Your task to perform on an android device: toggle improve location accuracy Image 0: 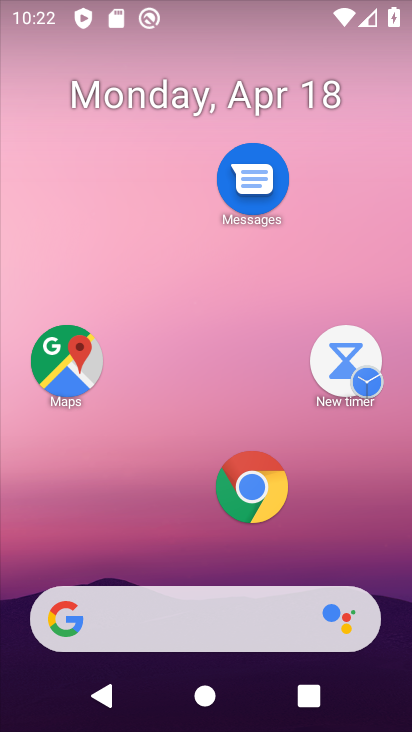
Step 0: drag from (126, 514) to (259, 43)
Your task to perform on an android device: toggle improve location accuracy Image 1: 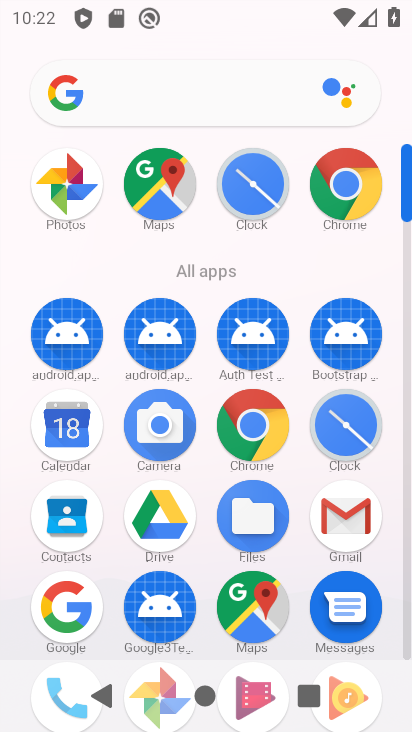
Step 1: drag from (197, 598) to (363, 154)
Your task to perform on an android device: toggle improve location accuracy Image 2: 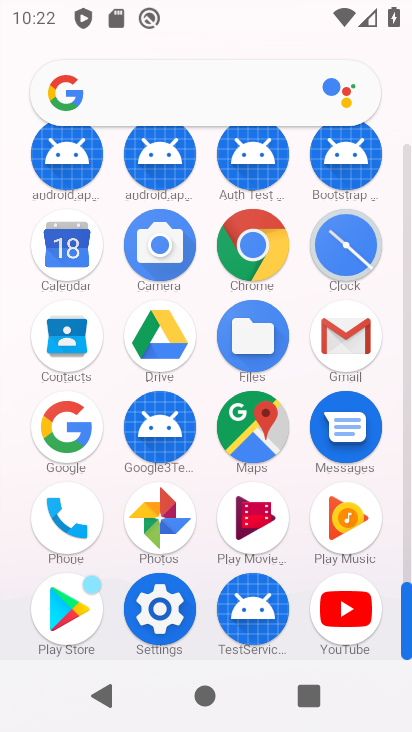
Step 2: click (149, 615)
Your task to perform on an android device: toggle improve location accuracy Image 3: 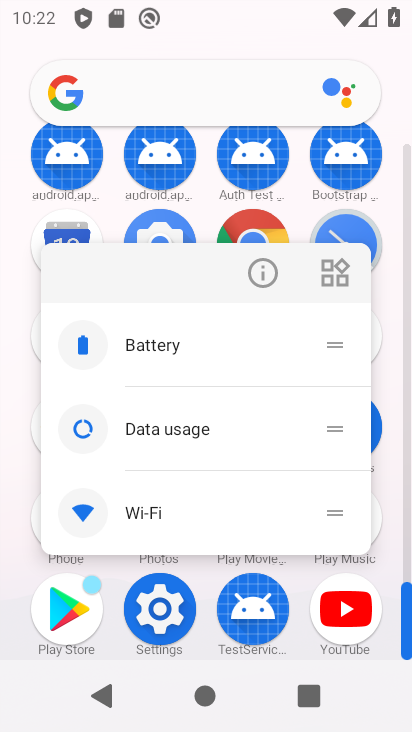
Step 3: click (148, 599)
Your task to perform on an android device: toggle improve location accuracy Image 4: 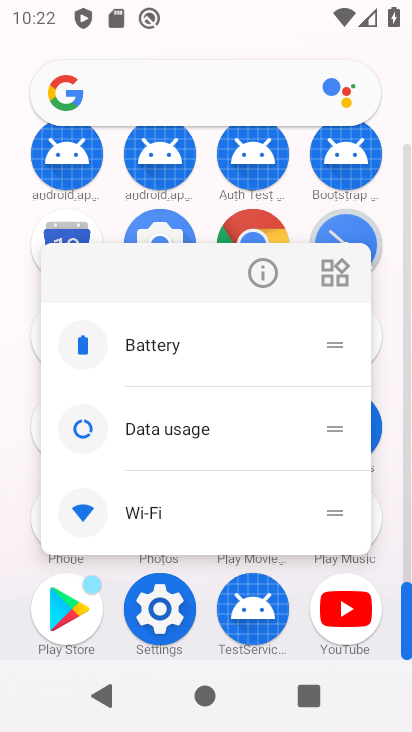
Step 4: click (140, 620)
Your task to perform on an android device: toggle improve location accuracy Image 5: 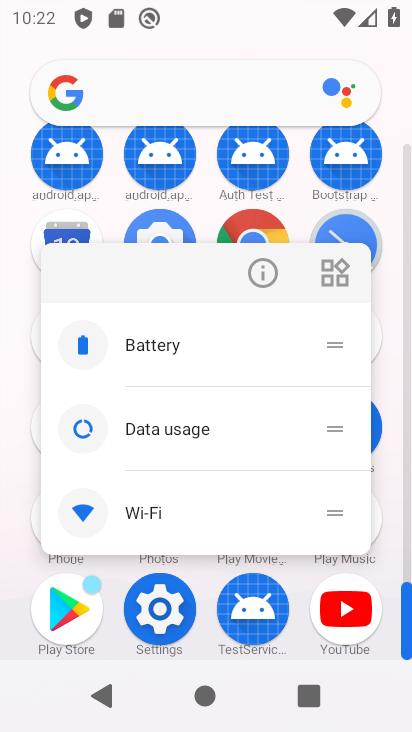
Step 5: click (162, 618)
Your task to perform on an android device: toggle improve location accuracy Image 6: 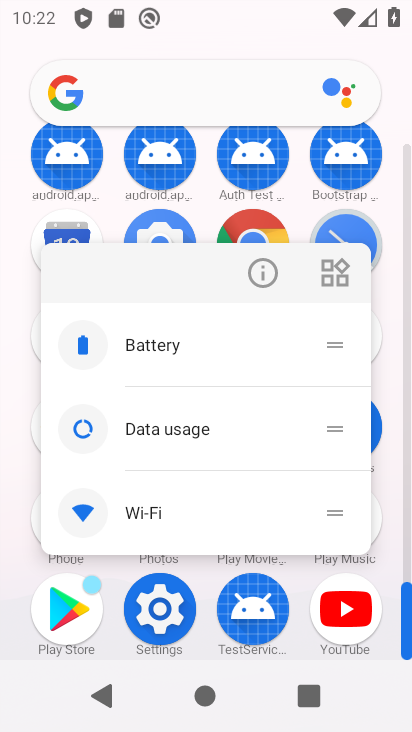
Step 6: click (143, 618)
Your task to perform on an android device: toggle improve location accuracy Image 7: 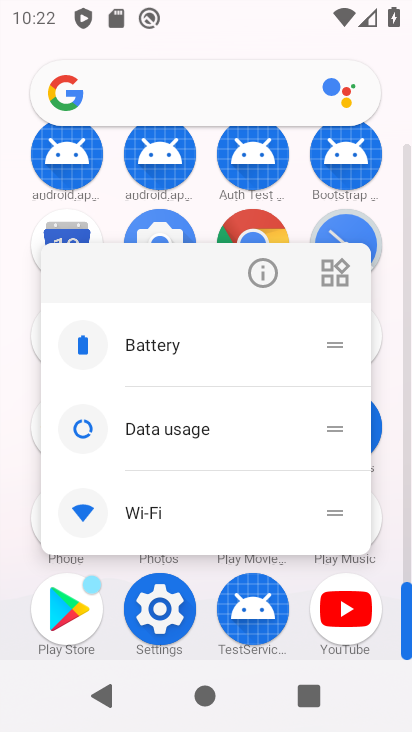
Step 7: click (164, 604)
Your task to perform on an android device: toggle improve location accuracy Image 8: 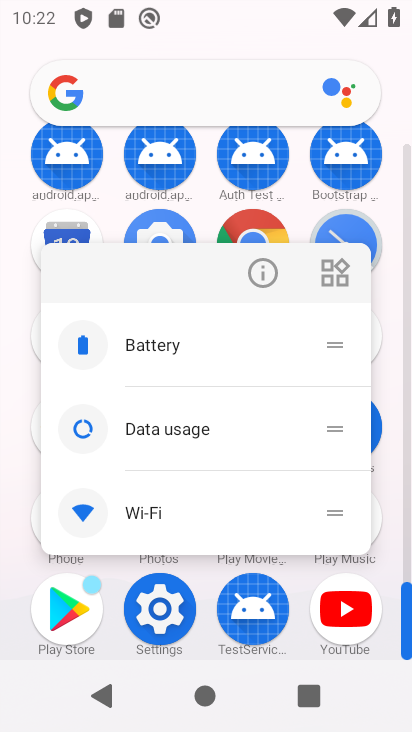
Step 8: click (177, 628)
Your task to perform on an android device: toggle improve location accuracy Image 9: 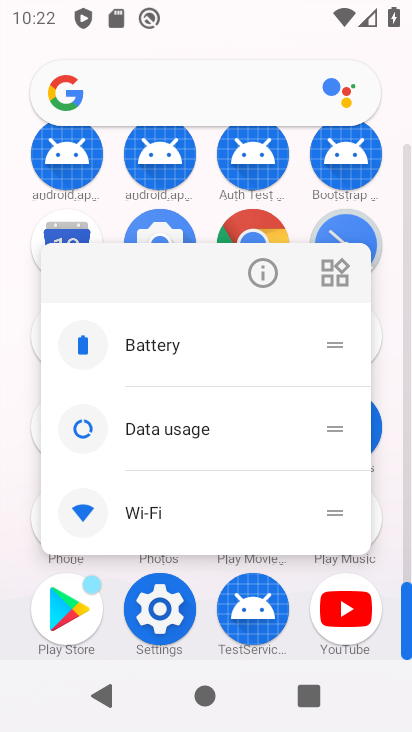
Step 9: click (169, 613)
Your task to perform on an android device: toggle improve location accuracy Image 10: 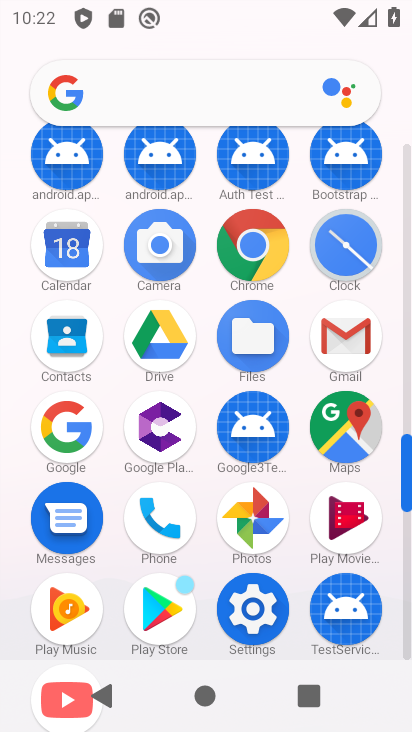
Step 10: click (252, 613)
Your task to perform on an android device: toggle improve location accuracy Image 11: 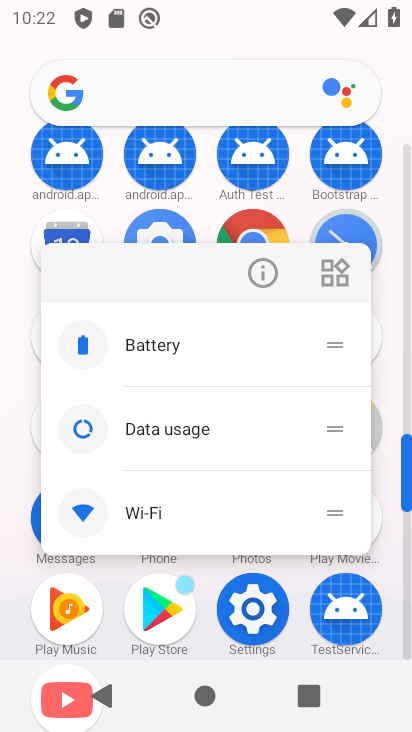
Step 11: click (266, 602)
Your task to perform on an android device: toggle improve location accuracy Image 12: 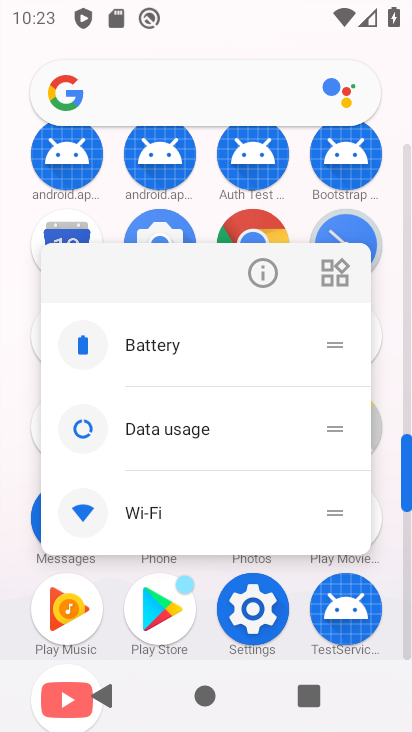
Step 12: click (193, 640)
Your task to perform on an android device: toggle improve location accuracy Image 13: 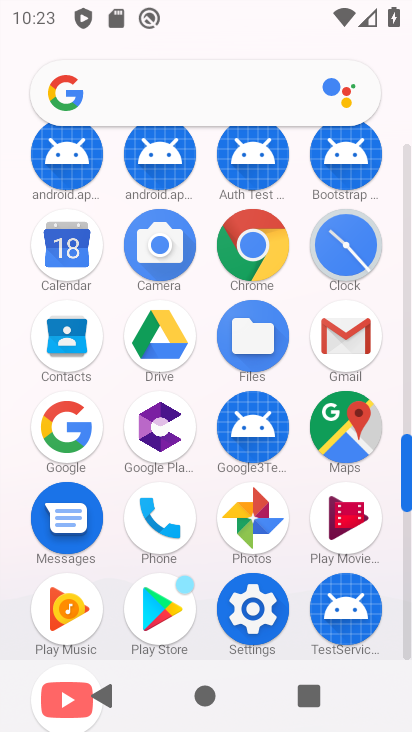
Step 13: click (266, 619)
Your task to perform on an android device: toggle improve location accuracy Image 14: 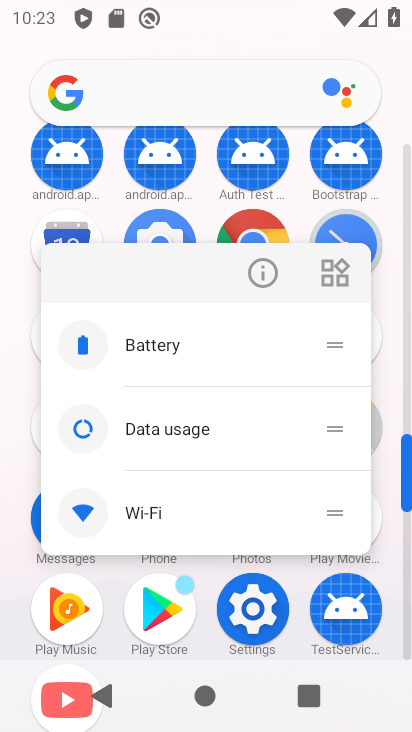
Step 14: click (262, 614)
Your task to perform on an android device: toggle improve location accuracy Image 15: 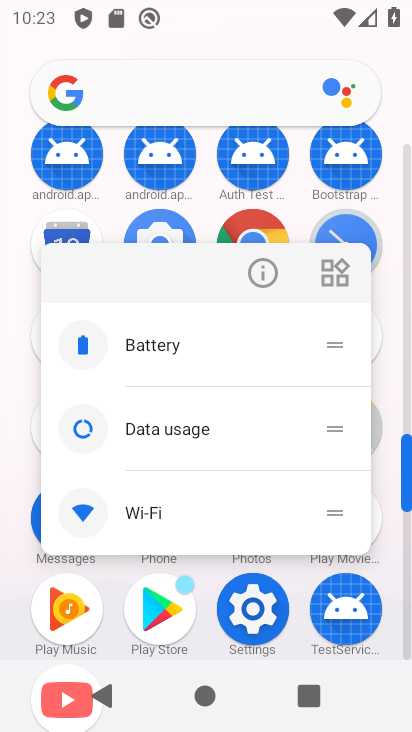
Step 15: click (262, 612)
Your task to perform on an android device: toggle improve location accuracy Image 16: 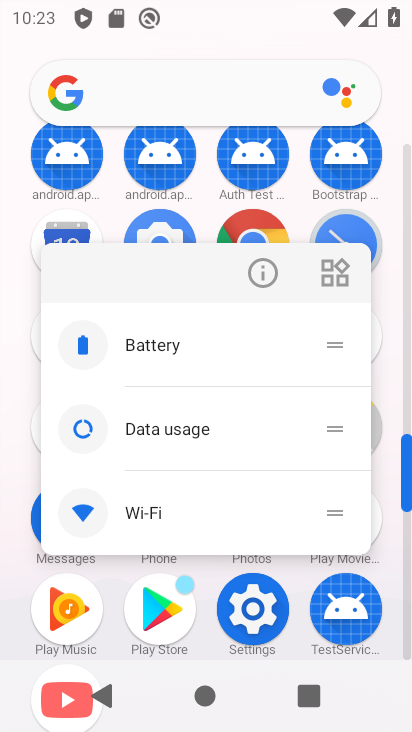
Step 16: click (252, 597)
Your task to perform on an android device: toggle improve location accuracy Image 17: 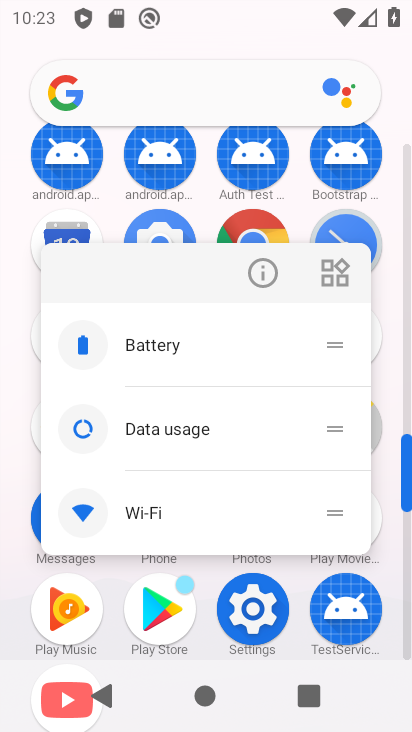
Step 17: click (250, 609)
Your task to perform on an android device: toggle improve location accuracy Image 18: 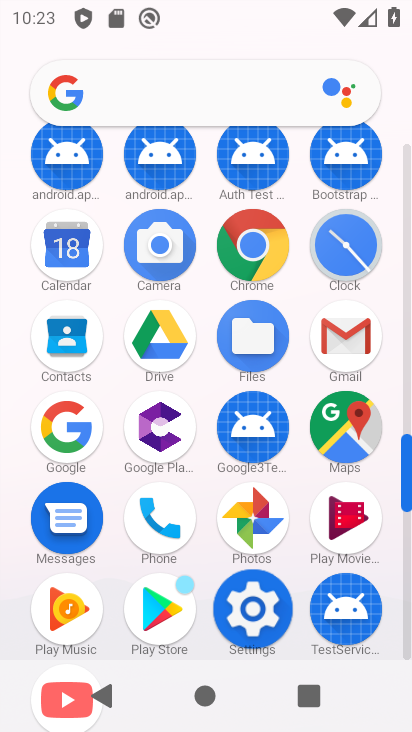
Step 18: click (250, 609)
Your task to perform on an android device: toggle improve location accuracy Image 19: 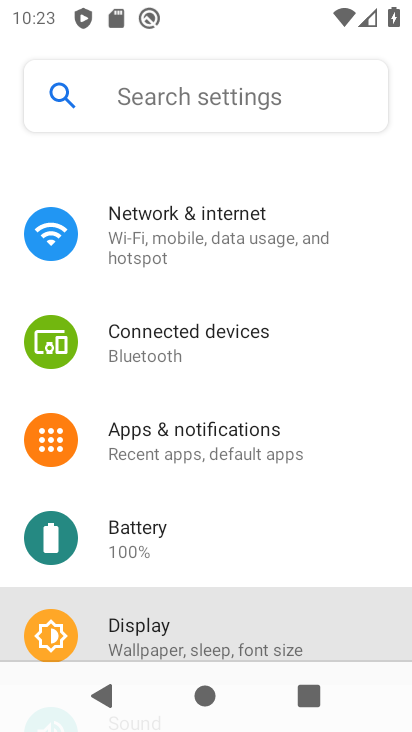
Step 19: click (250, 609)
Your task to perform on an android device: toggle improve location accuracy Image 20: 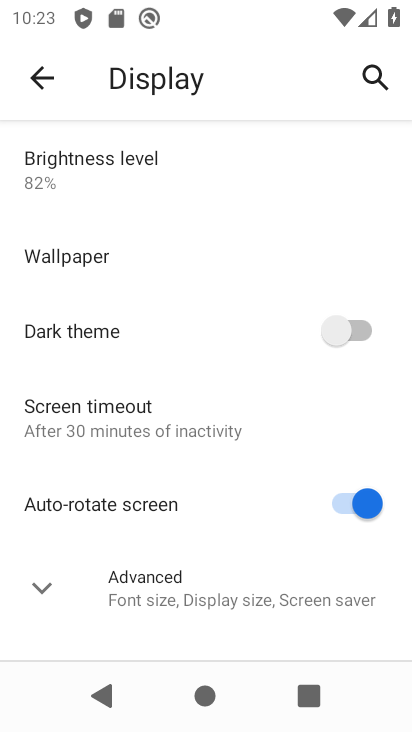
Step 20: press back button
Your task to perform on an android device: toggle improve location accuracy Image 21: 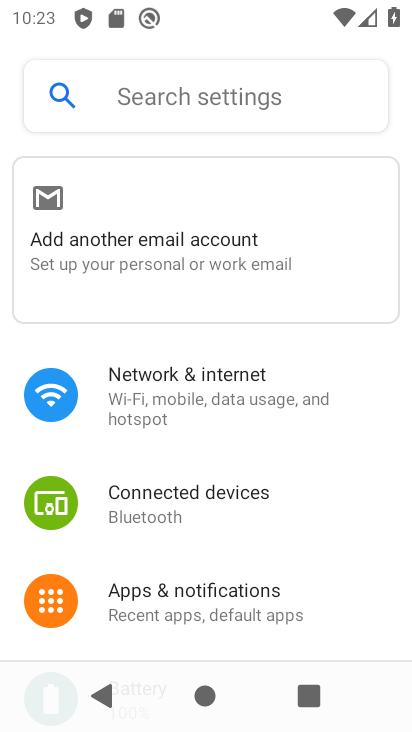
Step 21: drag from (194, 591) to (360, 93)
Your task to perform on an android device: toggle improve location accuracy Image 22: 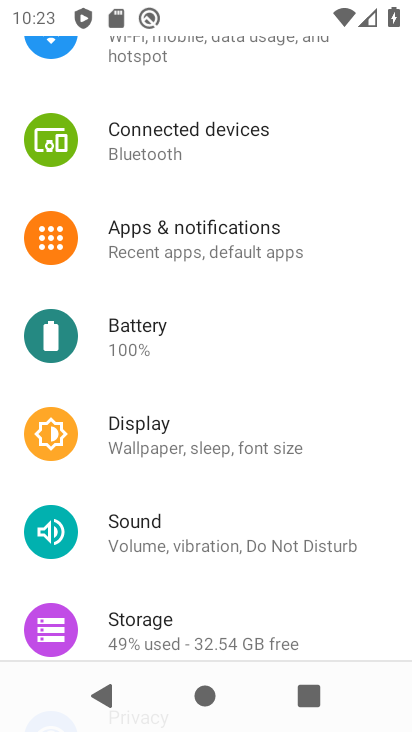
Step 22: drag from (259, 269) to (329, 113)
Your task to perform on an android device: toggle improve location accuracy Image 23: 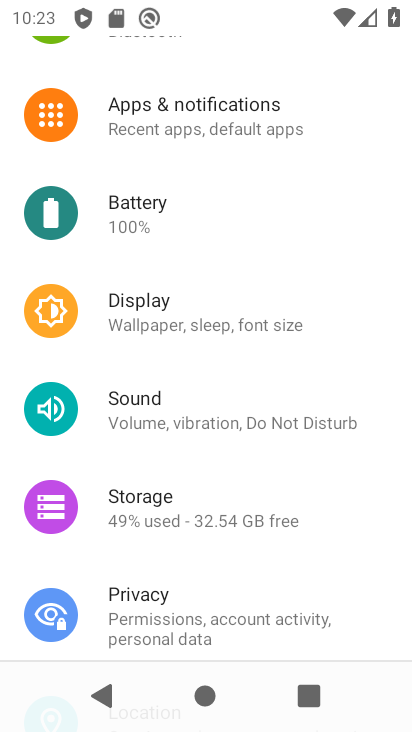
Step 23: drag from (188, 591) to (309, 171)
Your task to perform on an android device: toggle improve location accuracy Image 24: 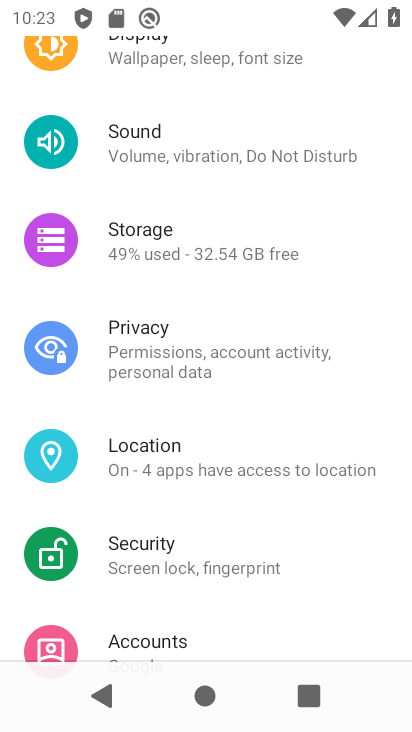
Step 24: click (149, 462)
Your task to perform on an android device: toggle improve location accuracy Image 25: 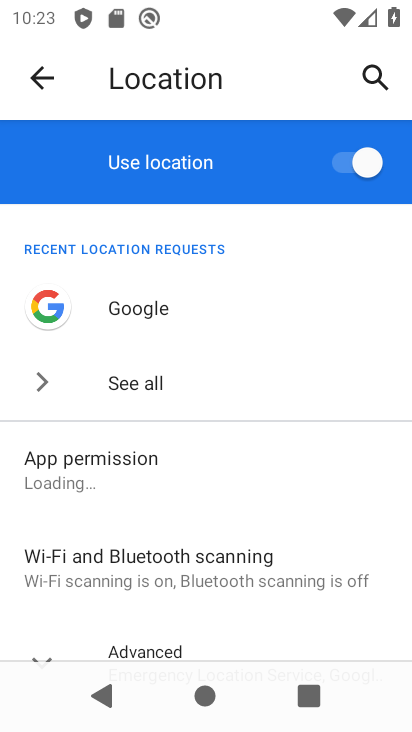
Step 25: drag from (177, 607) to (251, 317)
Your task to perform on an android device: toggle improve location accuracy Image 26: 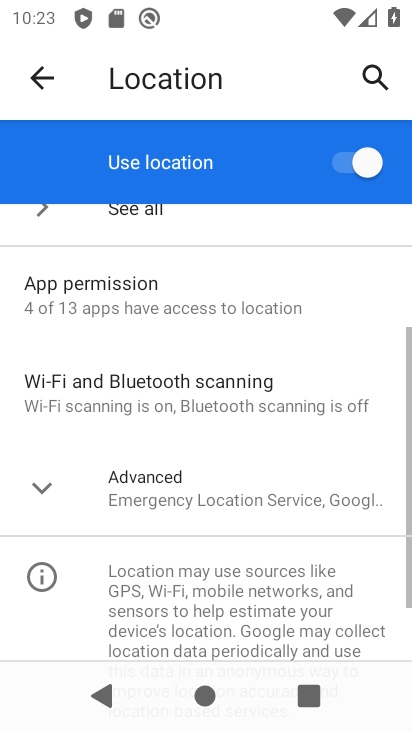
Step 26: click (217, 501)
Your task to perform on an android device: toggle improve location accuracy Image 27: 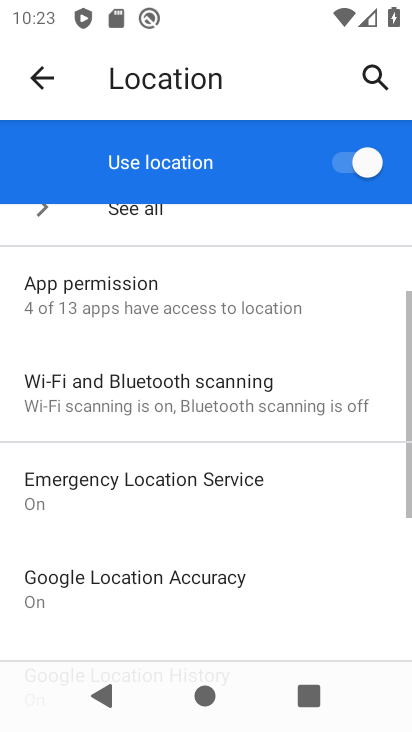
Step 27: drag from (232, 565) to (289, 347)
Your task to perform on an android device: toggle improve location accuracy Image 28: 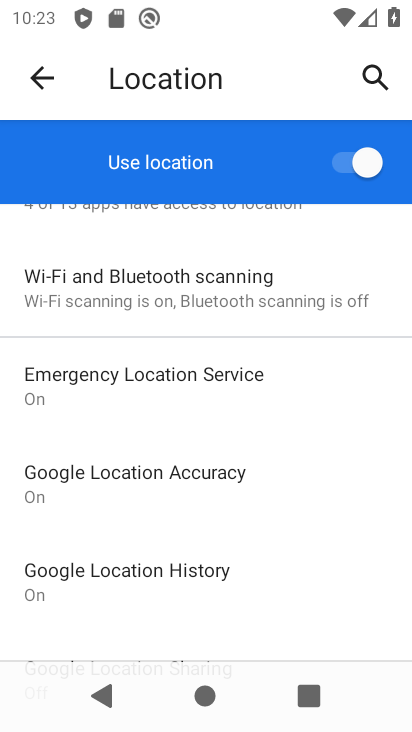
Step 28: drag from (228, 627) to (324, 342)
Your task to perform on an android device: toggle improve location accuracy Image 29: 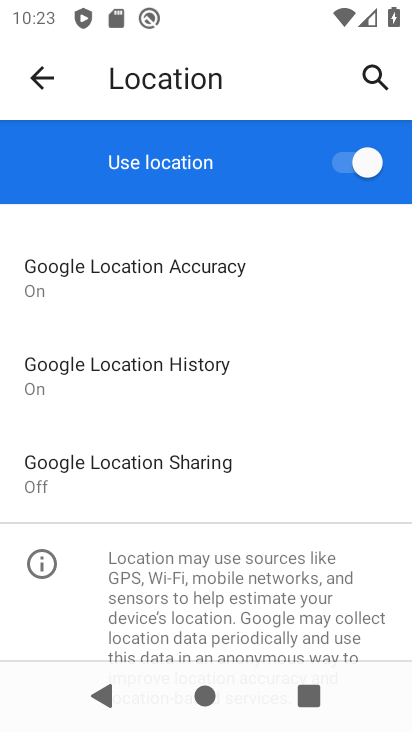
Step 29: click (192, 295)
Your task to perform on an android device: toggle improve location accuracy Image 30: 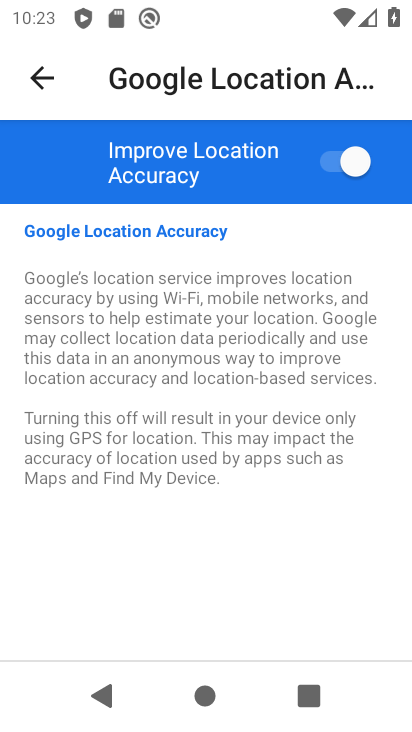
Step 30: click (316, 152)
Your task to perform on an android device: toggle improve location accuracy Image 31: 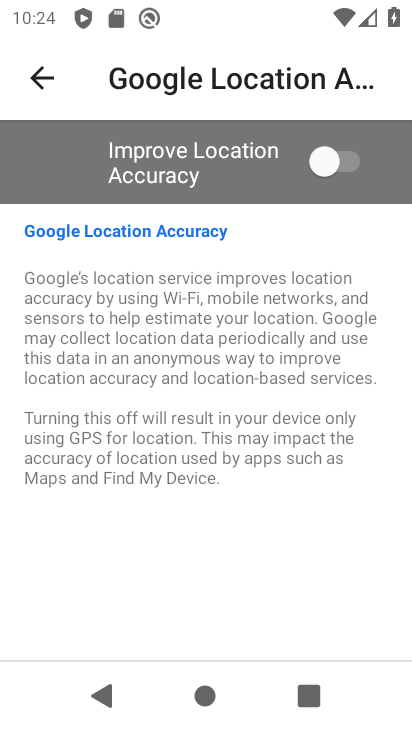
Step 31: task complete